Your task to perform on an android device: Open Youtube and go to "Your channel" Image 0: 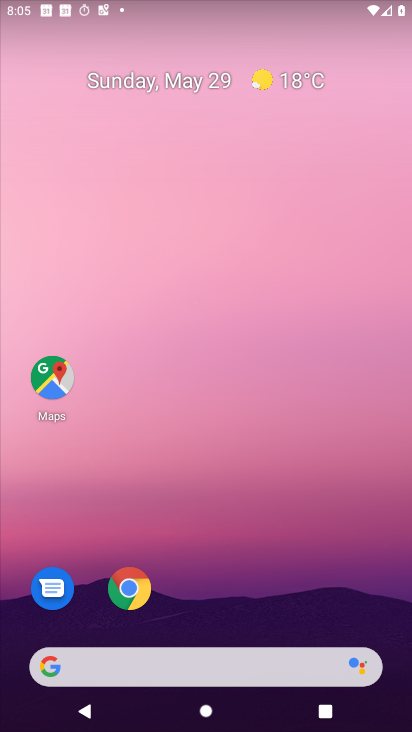
Step 0: drag from (197, 468) to (215, 36)
Your task to perform on an android device: Open Youtube and go to "Your channel" Image 1: 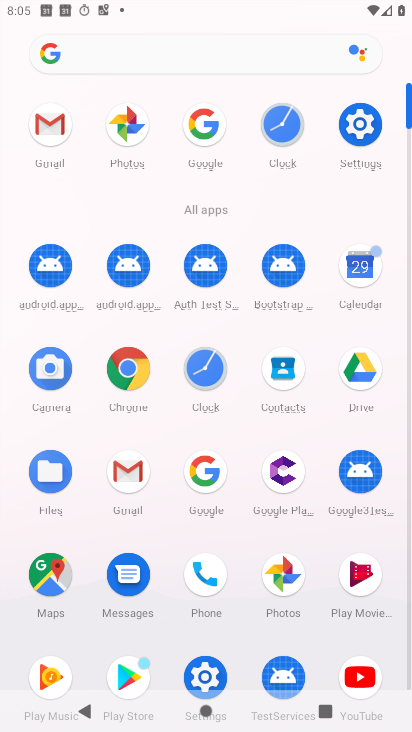
Step 1: click (363, 682)
Your task to perform on an android device: Open Youtube and go to "Your channel" Image 2: 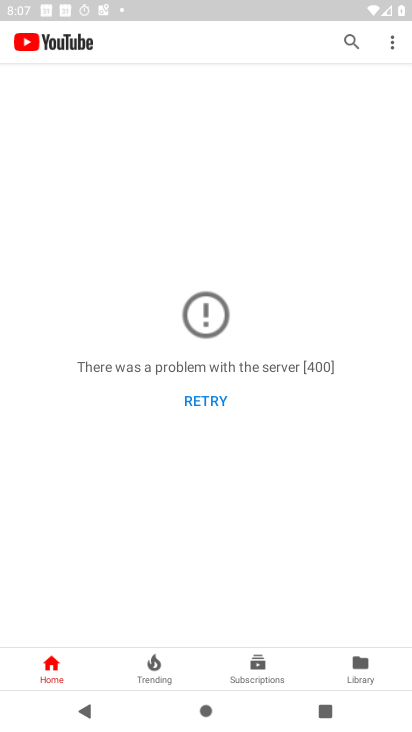
Step 2: task complete